Your task to perform on an android device: Open the calendar and show me this week's events Image 0: 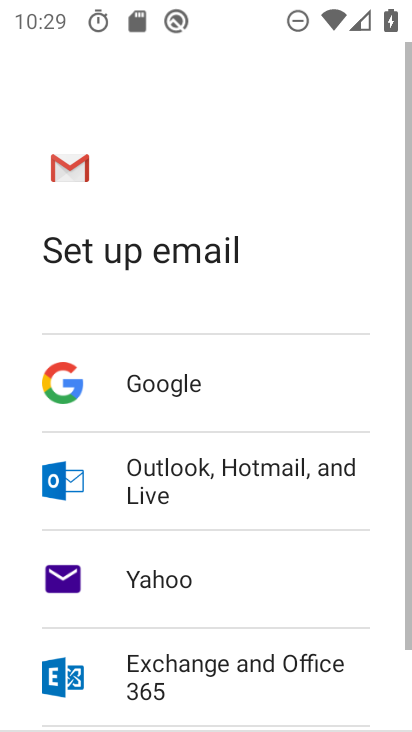
Step 0: press home button
Your task to perform on an android device: Open the calendar and show me this week's events Image 1: 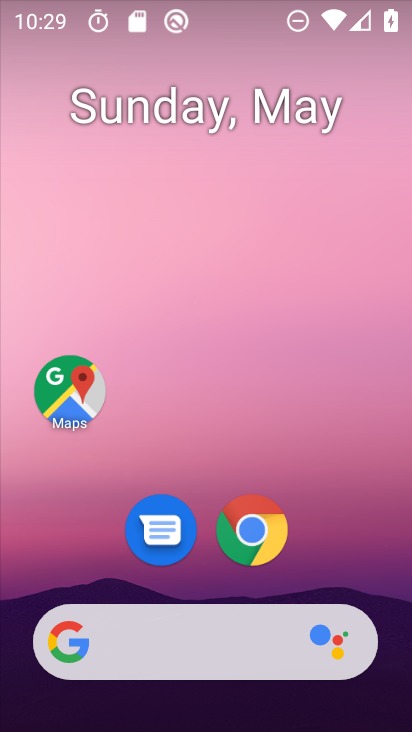
Step 1: drag from (264, 582) to (213, 222)
Your task to perform on an android device: Open the calendar and show me this week's events Image 2: 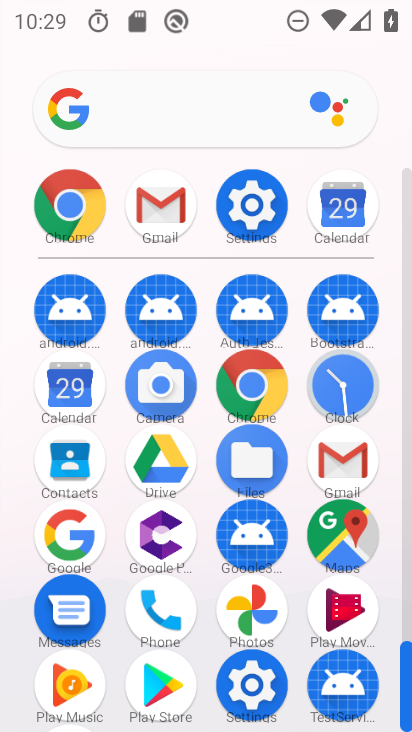
Step 2: click (87, 381)
Your task to perform on an android device: Open the calendar and show me this week's events Image 3: 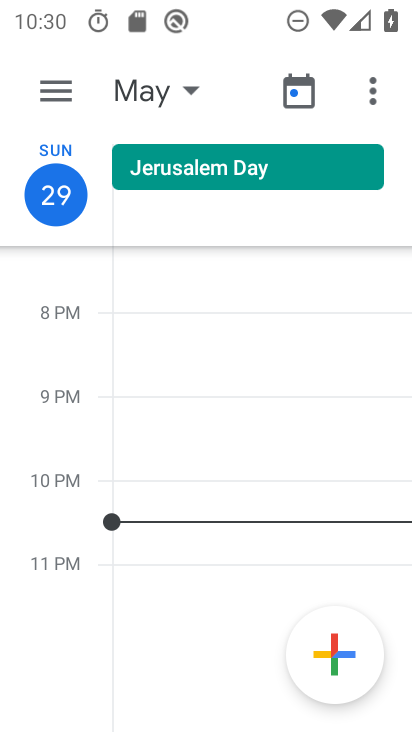
Step 3: click (54, 67)
Your task to perform on an android device: Open the calendar and show me this week's events Image 4: 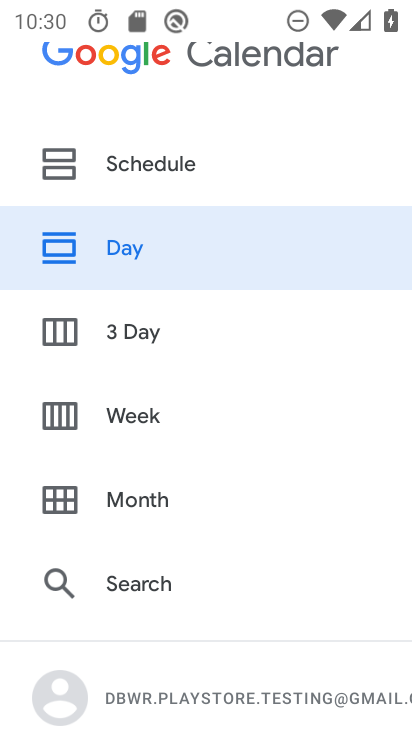
Step 4: click (125, 503)
Your task to perform on an android device: Open the calendar and show me this week's events Image 5: 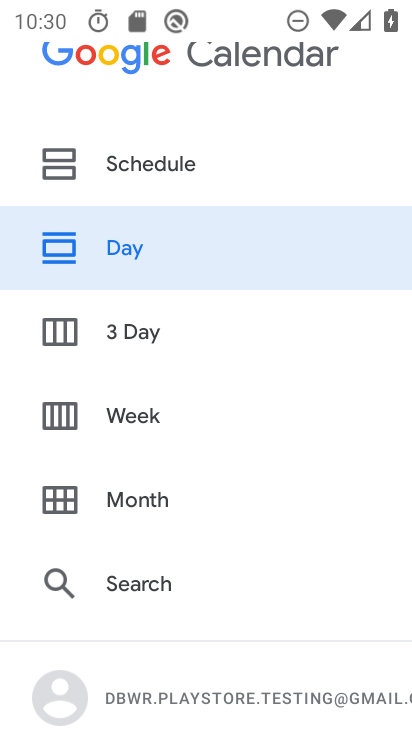
Step 5: click (150, 498)
Your task to perform on an android device: Open the calendar and show me this week's events Image 6: 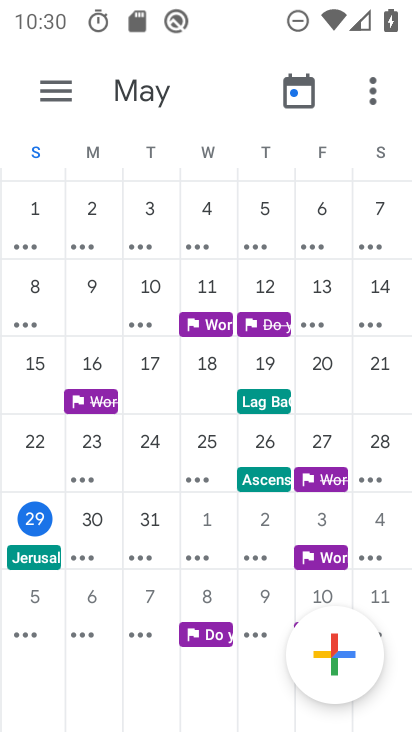
Step 6: click (79, 457)
Your task to perform on an android device: Open the calendar and show me this week's events Image 7: 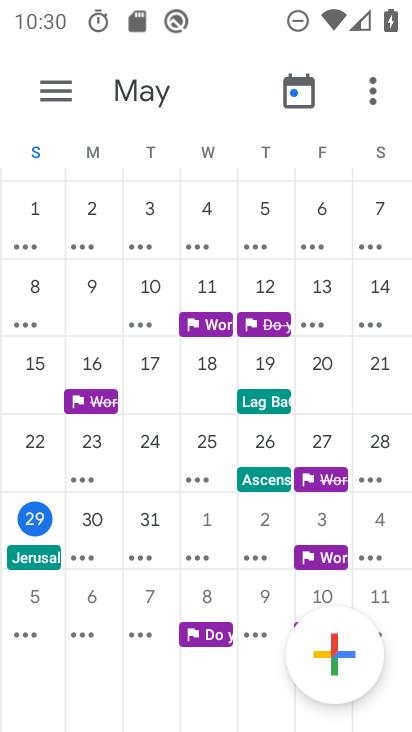
Step 7: click (53, 97)
Your task to perform on an android device: Open the calendar and show me this week's events Image 8: 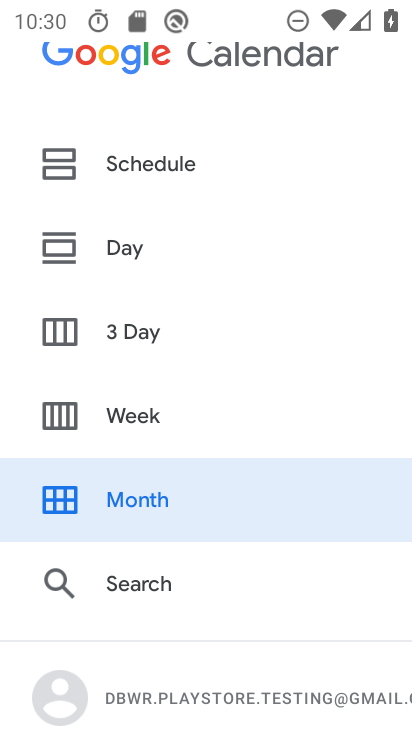
Step 8: click (137, 415)
Your task to perform on an android device: Open the calendar and show me this week's events Image 9: 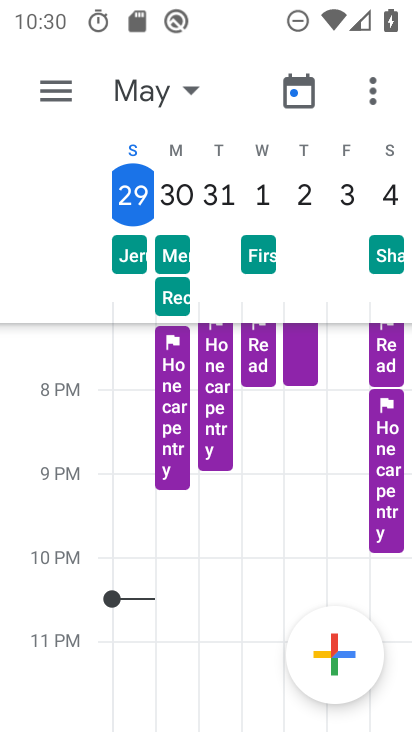
Step 9: task complete